Your task to perform on an android device: Search for Mexican restaurants on Maps Image 0: 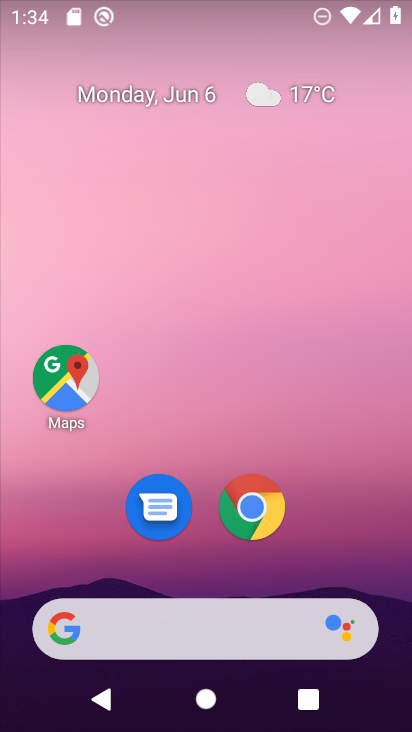
Step 0: drag from (248, 654) to (154, 230)
Your task to perform on an android device: Search for Mexican restaurants on Maps Image 1: 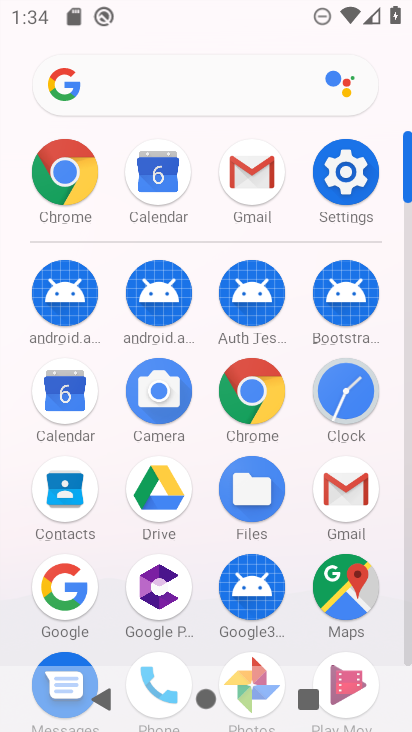
Step 1: click (373, 619)
Your task to perform on an android device: Search for Mexican restaurants on Maps Image 2: 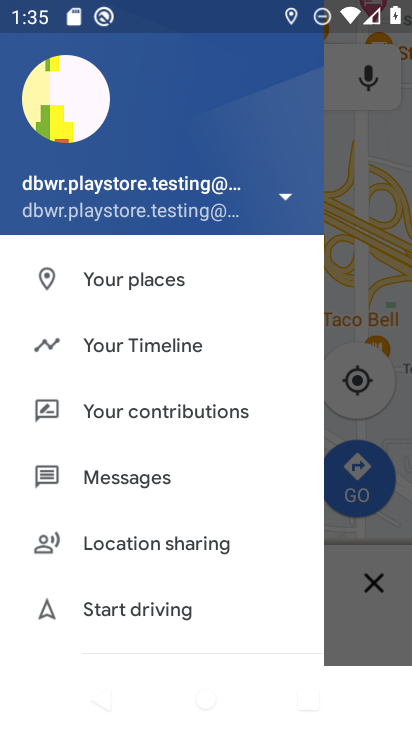
Step 2: click (378, 604)
Your task to perform on an android device: Search for Mexican restaurants on Maps Image 3: 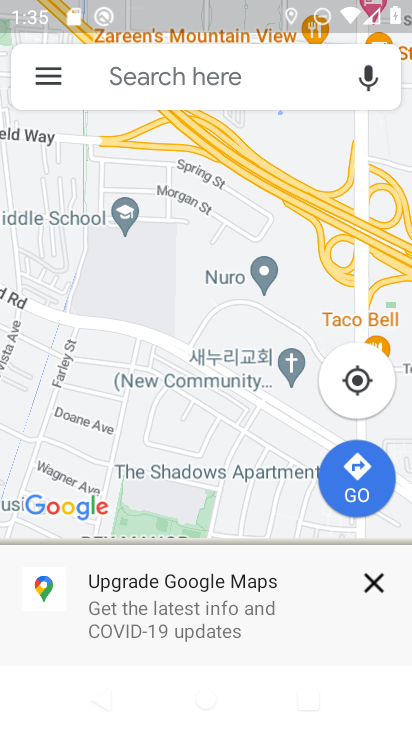
Step 3: click (385, 575)
Your task to perform on an android device: Search for Mexican restaurants on Maps Image 4: 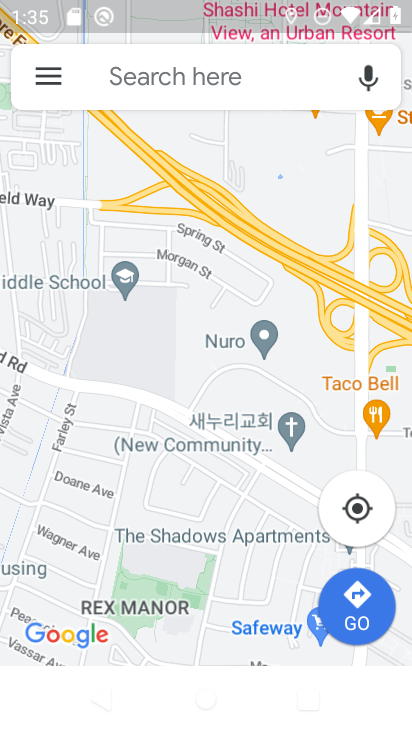
Step 4: click (168, 57)
Your task to perform on an android device: Search for Mexican restaurants on Maps Image 5: 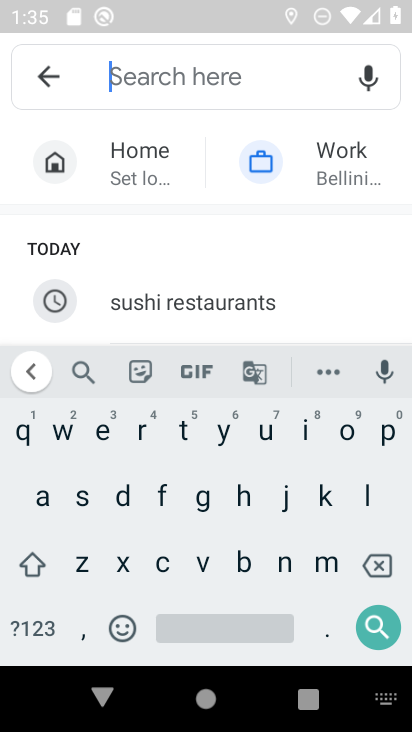
Step 5: click (310, 560)
Your task to perform on an android device: Search for Mexican restaurants on Maps Image 6: 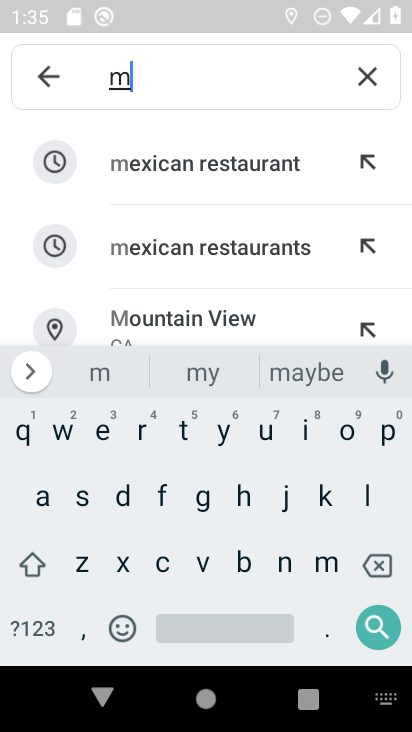
Step 6: click (170, 178)
Your task to perform on an android device: Search for Mexican restaurants on Maps Image 7: 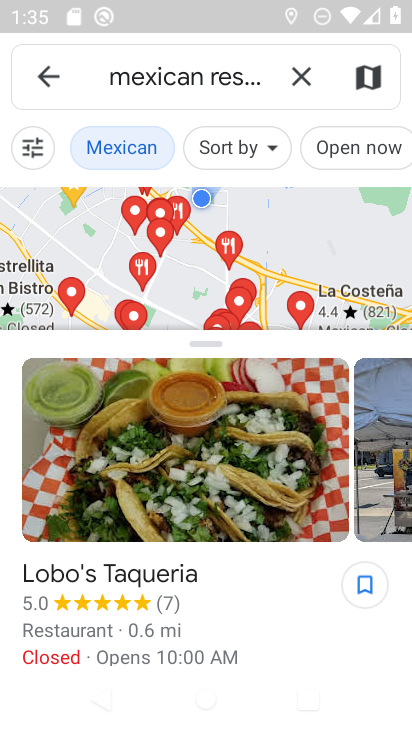
Step 7: task complete